Your task to perform on an android device: Open ESPN.com Image 0: 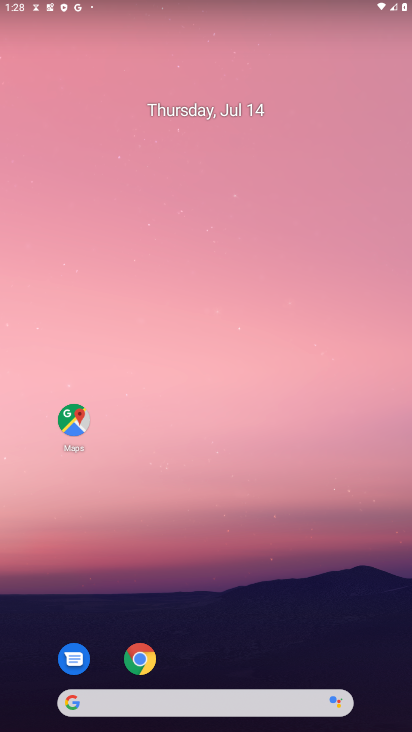
Step 0: click (131, 686)
Your task to perform on an android device: Open ESPN.com Image 1: 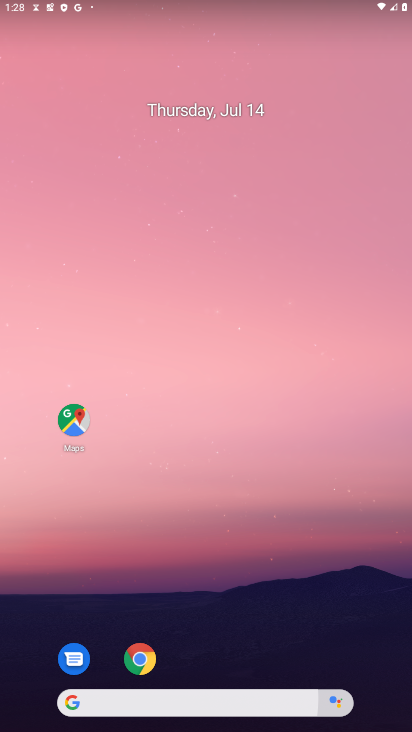
Step 1: click (132, 691)
Your task to perform on an android device: Open ESPN.com Image 2: 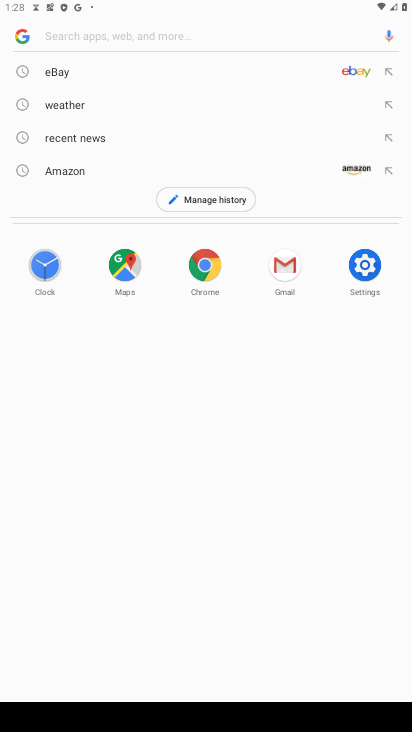
Step 2: type "ESPN.com"
Your task to perform on an android device: Open ESPN.com Image 3: 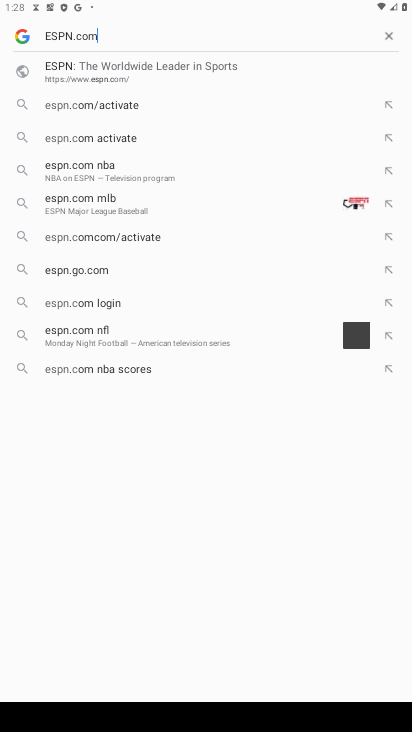
Step 3: type ""
Your task to perform on an android device: Open ESPN.com Image 4: 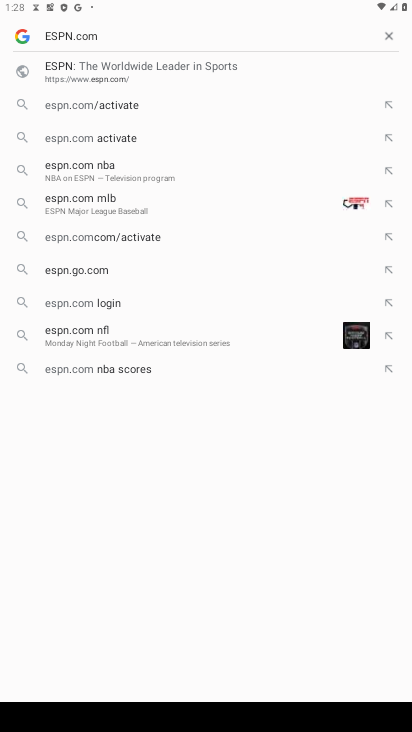
Step 4: click (54, 66)
Your task to perform on an android device: Open ESPN.com Image 5: 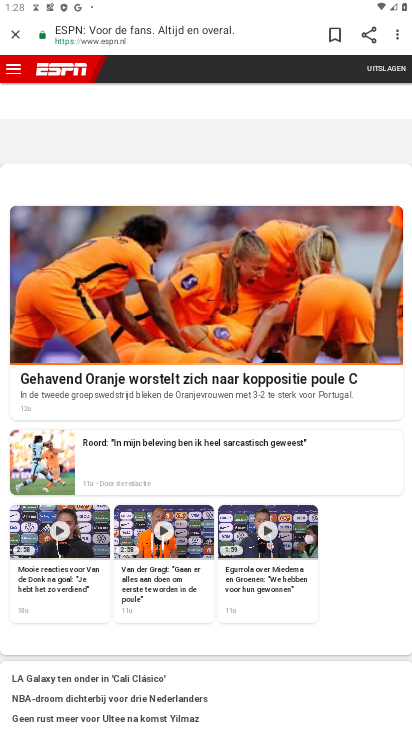
Step 5: task complete